Your task to perform on an android device: Open settings on Google Maps Image 0: 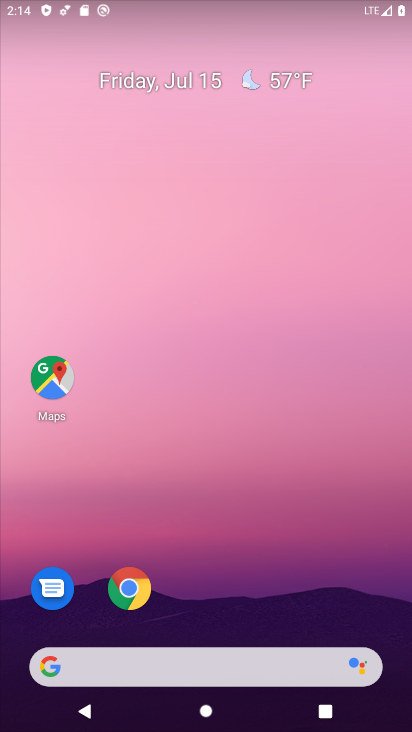
Step 0: click (51, 372)
Your task to perform on an android device: Open settings on Google Maps Image 1: 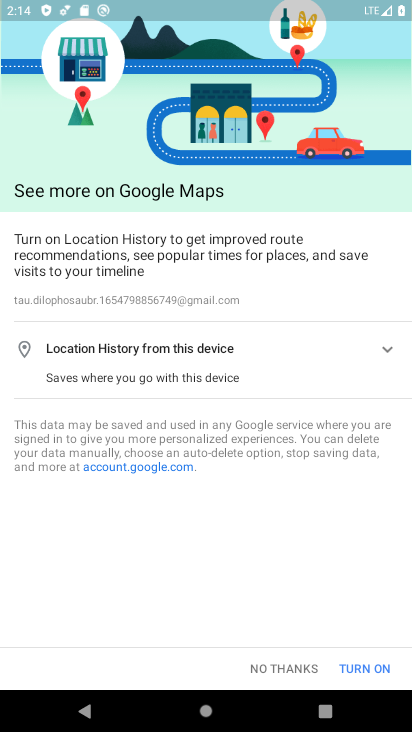
Step 1: click (264, 672)
Your task to perform on an android device: Open settings on Google Maps Image 2: 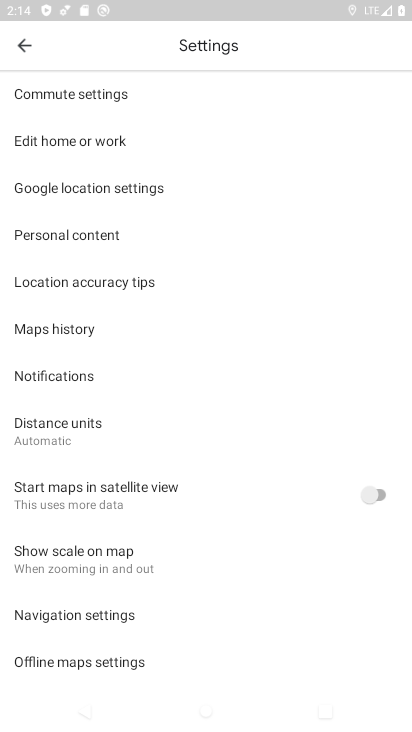
Step 2: task complete